Your task to perform on an android device: Open calendar and show me the fourth week of next month Image 0: 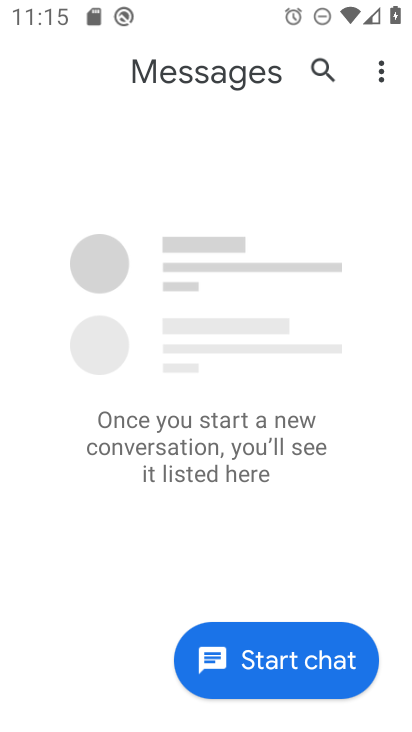
Step 0: drag from (353, 689) to (225, 5)
Your task to perform on an android device: Open calendar and show me the fourth week of next month Image 1: 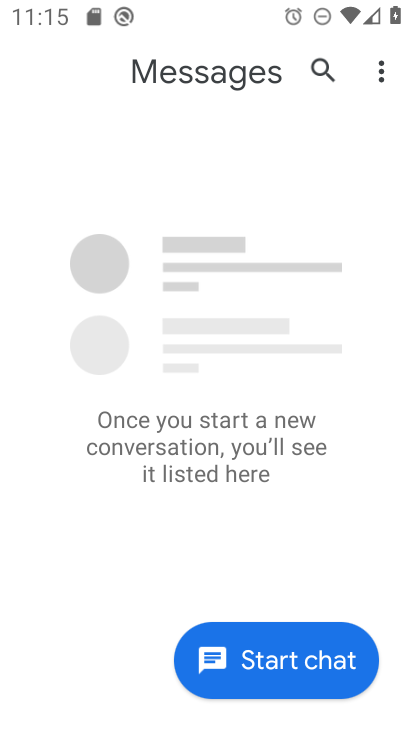
Step 1: press back button
Your task to perform on an android device: Open calendar and show me the fourth week of next month Image 2: 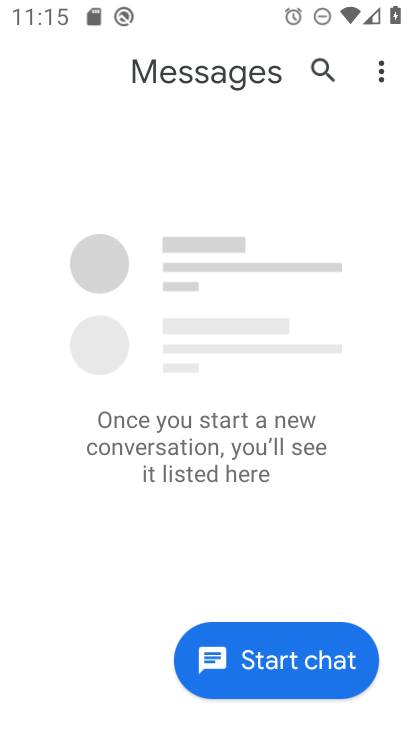
Step 2: press back button
Your task to perform on an android device: Open calendar and show me the fourth week of next month Image 3: 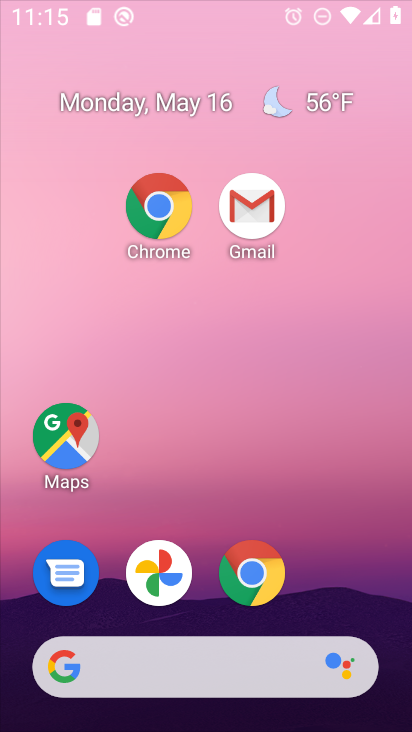
Step 3: press back button
Your task to perform on an android device: Open calendar and show me the fourth week of next month Image 4: 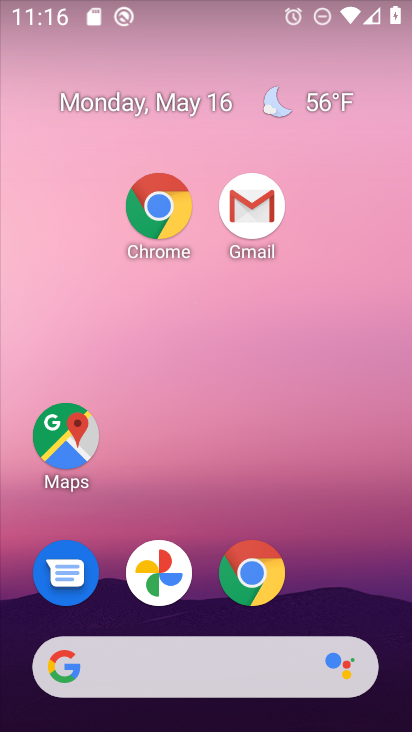
Step 4: drag from (372, 591) to (290, 231)
Your task to perform on an android device: Open calendar and show me the fourth week of next month Image 5: 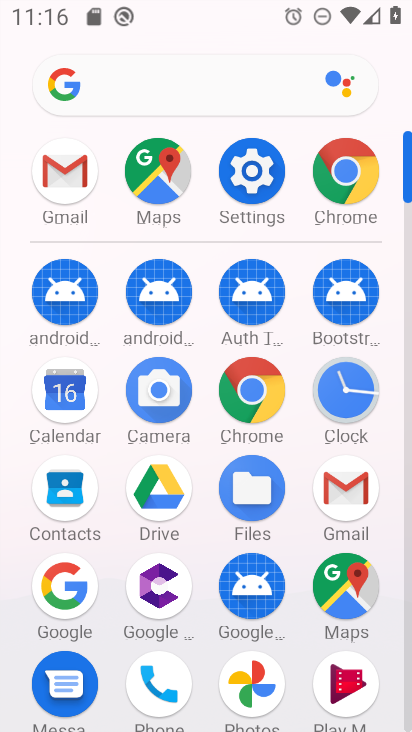
Step 5: click (80, 395)
Your task to perform on an android device: Open calendar and show me the fourth week of next month Image 6: 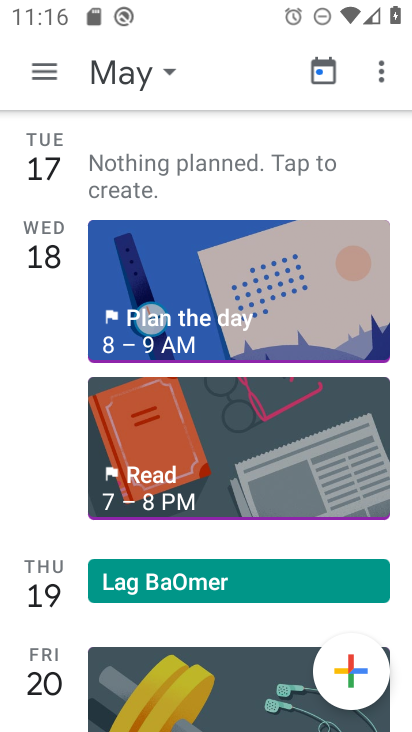
Step 6: click (161, 64)
Your task to perform on an android device: Open calendar and show me the fourth week of next month Image 7: 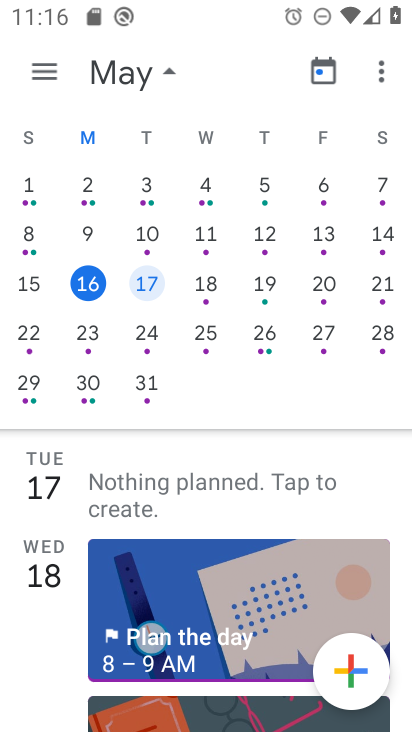
Step 7: drag from (217, 293) to (12, 331)
Your task to perform on an android device: Open calendar and show me the fourth week of next month Image 8: 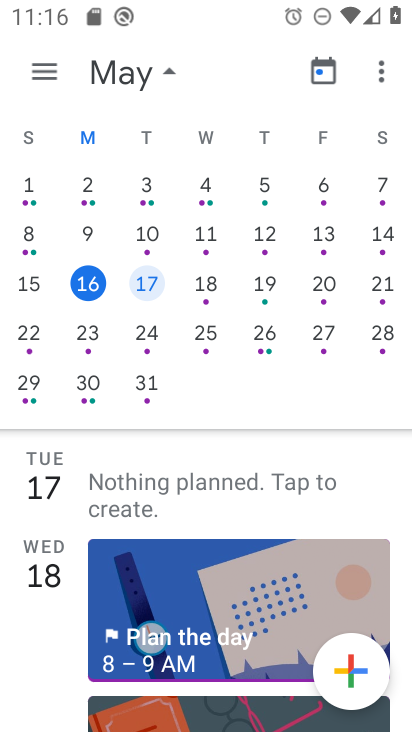
Step 8: drag from (196, 276) to (4, 226)
Your task to perform on an android device: Open calendar and show me the fourth week of next month Image 9: 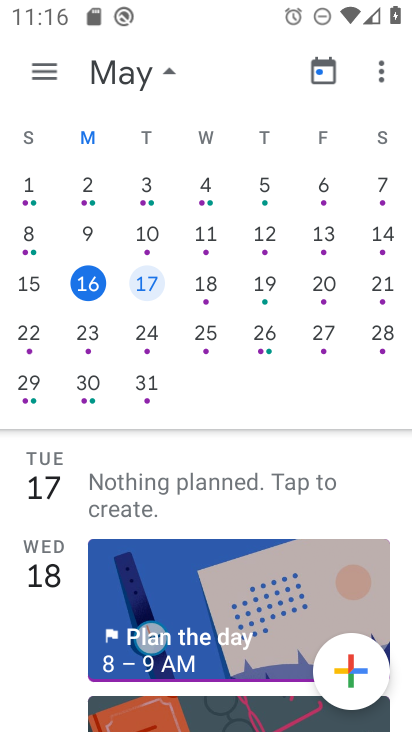
Step 9: drag from (290, 234) to (24, 248)
Your task to perform on an android device: Open calendar and show me the fourth week of next month Image 10: 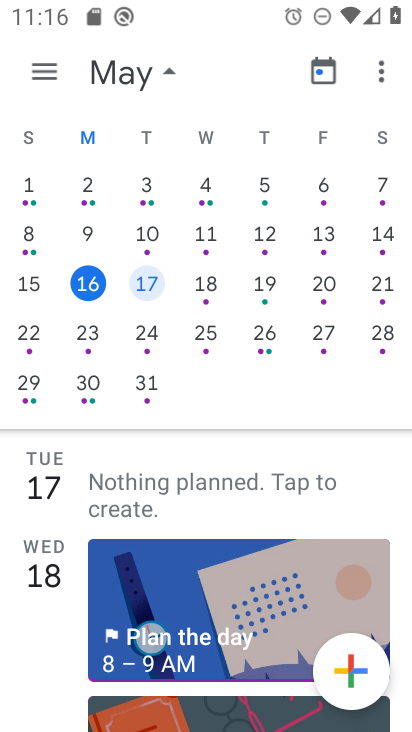
Step 10: drag from (215, 293) to (44, 103)
Your task to perform on an android device: Open calendar and show me the fourth week of next month Image 11: 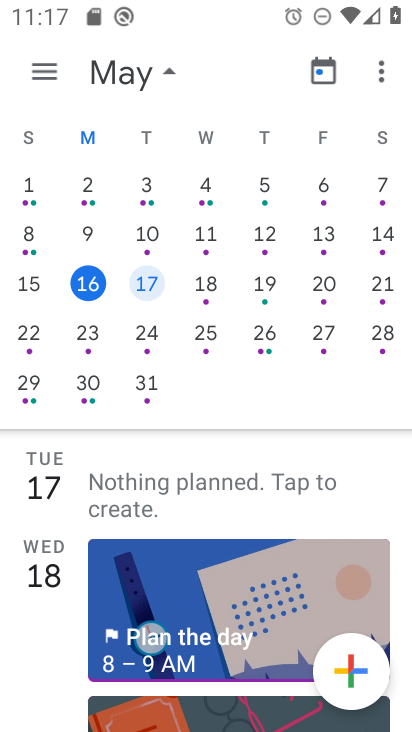
Step 11: drag from (221, 272) to (32, 234)
Your task to perform on an android device: Open calendar and show me the fourth week of next month Image 12: 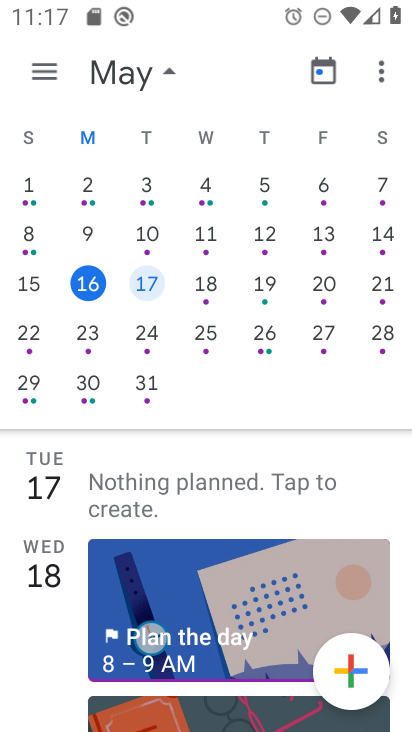
Step 12: drag from (238, 258) to (25, 188)
Your task to perform on an android device: Open calendar and show me the fourth week of next month Image 13: 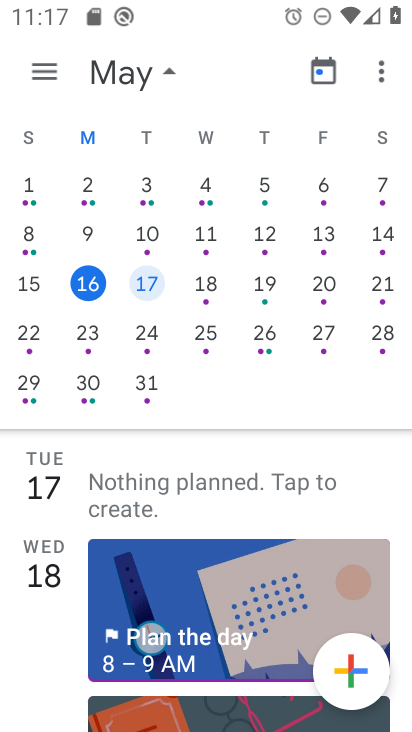
Step 13: drag from (259, 280) to (4, 371)
Your task to perform on an android device: Open calendar and show me the fourth week of next month Image 14: 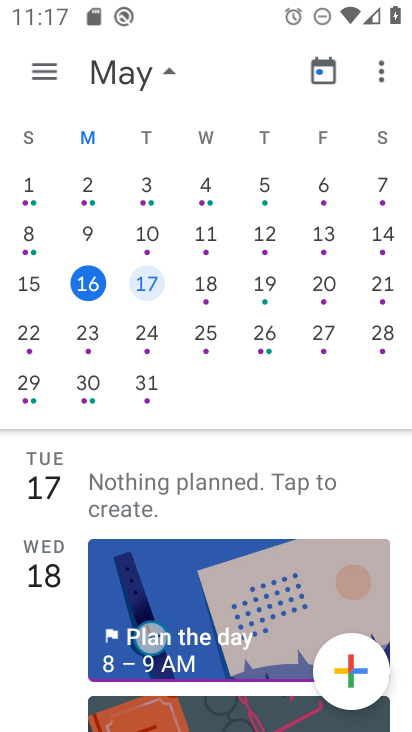
Step 14: drag from (238, 300) to (61, 384)
Your task to perform on an android device: Open calendar and show me the fourth week of next month Image 15: 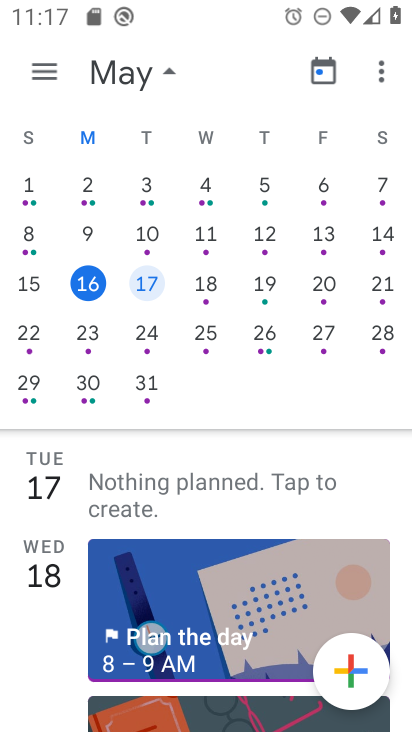
Step 15: drag from (234, 281) to (55, 369)
Your task to perform on an android device: Open calendar and show me the fourth week of next month Image 16: 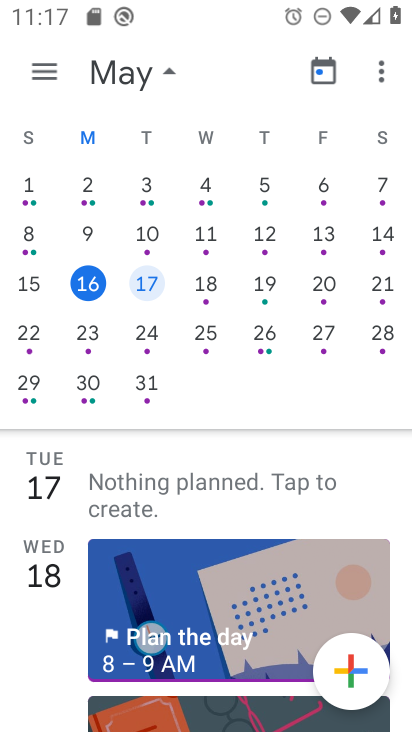
Step 16: drag from (236, 307) to (0, 206)
Your task to perform on an android device: Open calendar and show me the fourth week of next month Image 17: 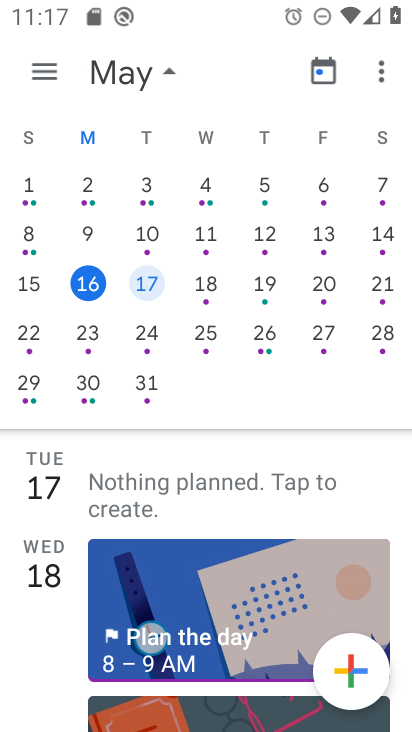
Step 17: drag from (173, 304) to (3, 264)
Your task to perform on an android device: Open calendar and show me the fourth week of next month Image 18: 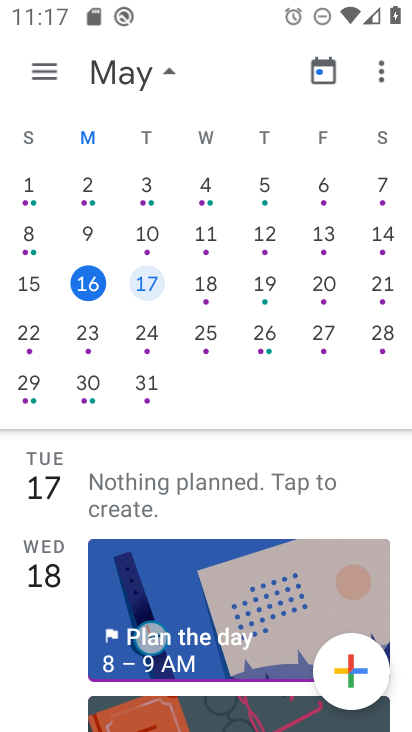
Step 18: drag from (256, 287) to (189, 271)
Your task to perform on an android device: Open calendar and show me the fourth week of next month Image 19: 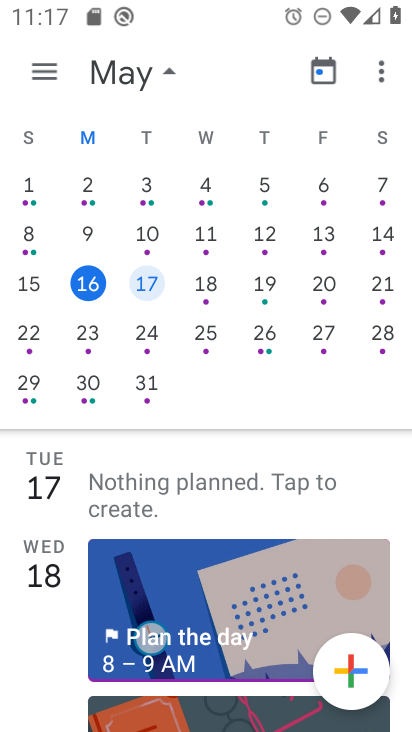
Step 19: drag from (305, 308) to (51, 246)
Your task to perform on an android device: Open calendar and show me the fourth week of next month Image 20: 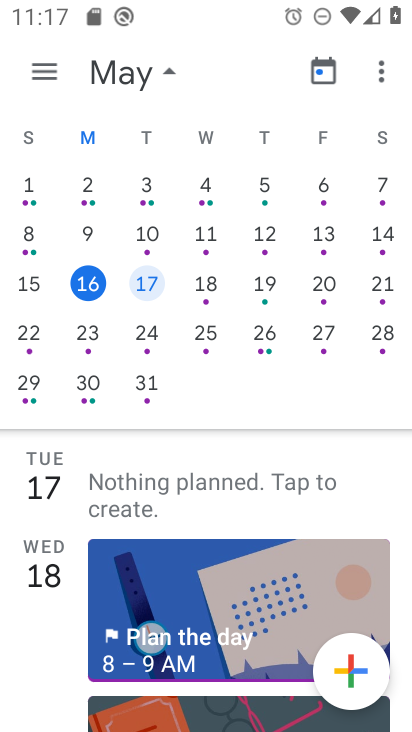
Step 20: drag from (312, 241) to (18, 256)
Your task to perform on an android device: Open calendar and show me the fourth week of next month Image 21: 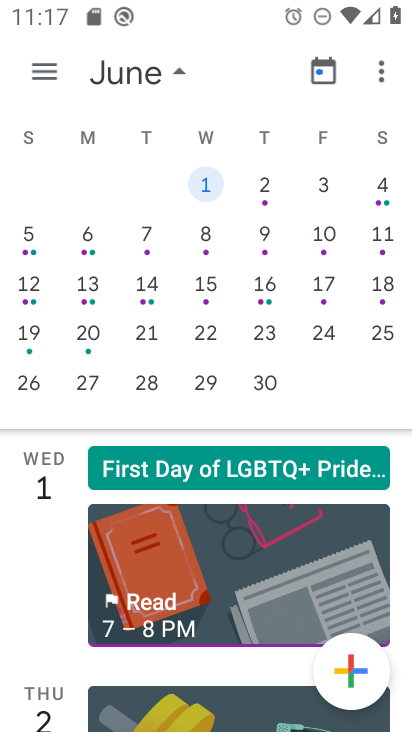
Step 21: drag from (242, 270) to (20, 216)
Your task to perform on an android device: Open calendar and show me the fourth week of next month Image 22: 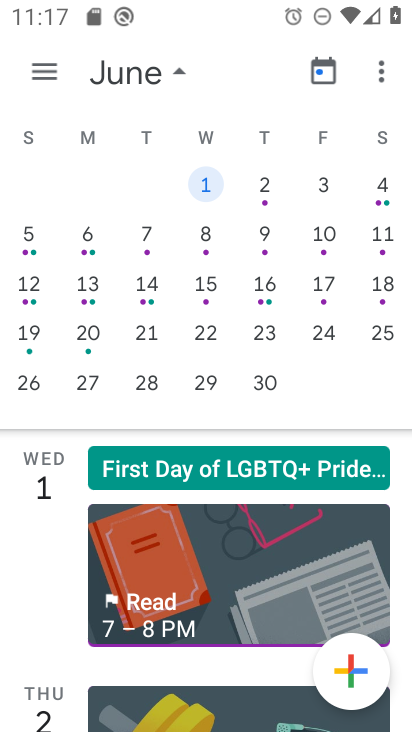
Step 22: click (217, 329)
Your task to perform on an android device: Open calendar and show me the fourth week of next month Image 23: 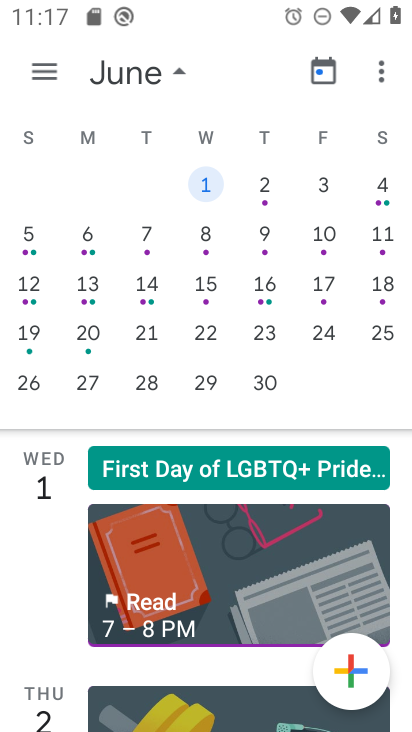
Step 23: click (217, 330)
Your task to perform on an android device: Open calendar and show me the fourth week of next month Image 24: 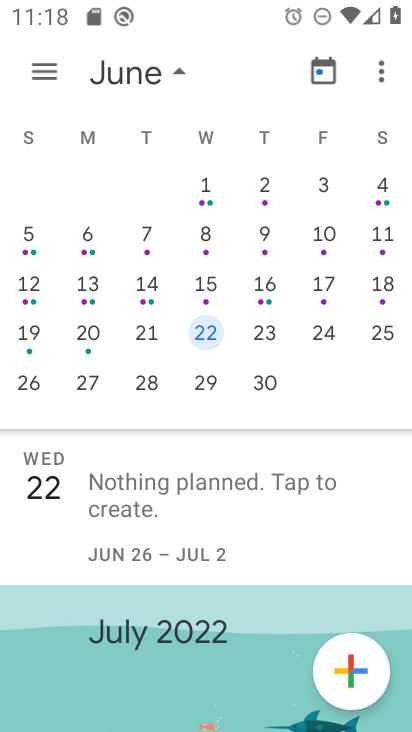
Step 24: task complete